Your task to perform on an android device: Turn off the flashlight Image 0: 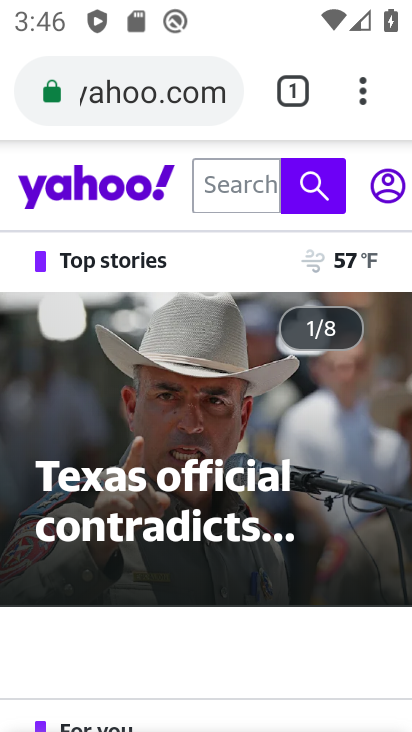
Step 0: press home button
Your task to perform on an android device: Turn off the flashlight Image 1: 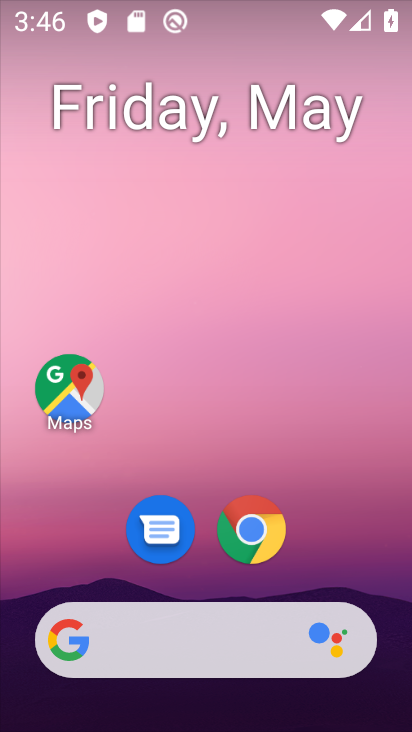
Step 1: task complete